Your task to perform on an android device: Open Google Maps Image 0: 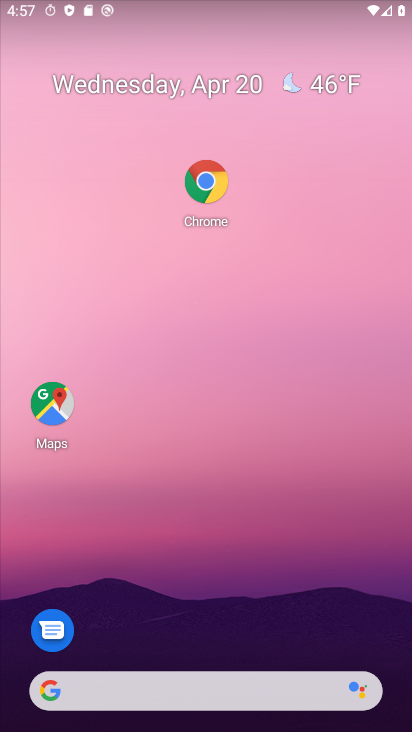
Step 0: click (52, 405)
Your task to perform on an android device: Open Google Maps Image 1: 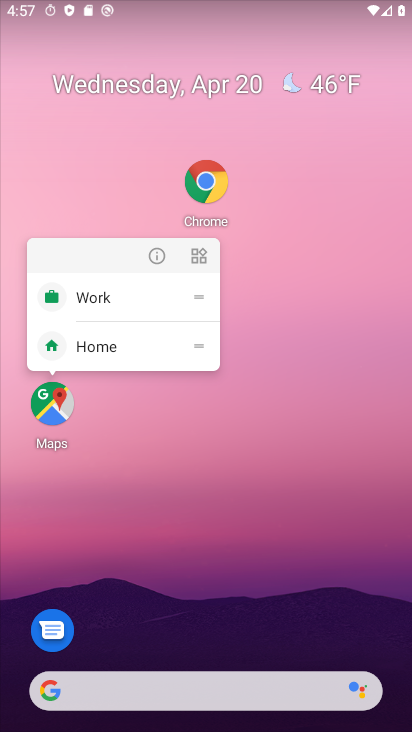
Step 1: drag from (251, 669) to (303, 79)
Your task to perform on an android device: Open Google Maps Image 2: 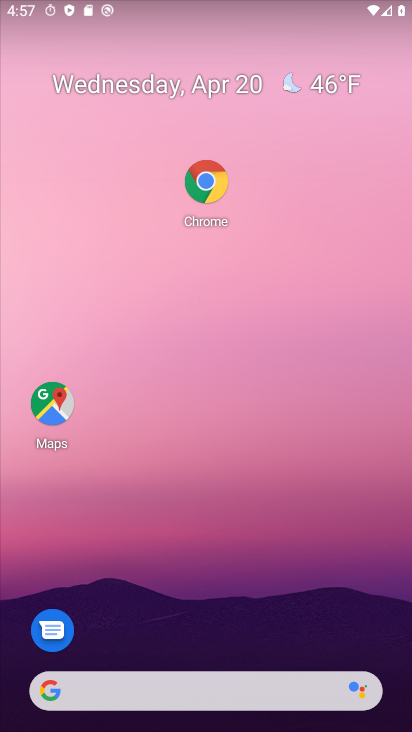
Step 2: drag from (233, 656) to (285, 235)
Your task to perform on an android device: Open Google Maps Image 3: 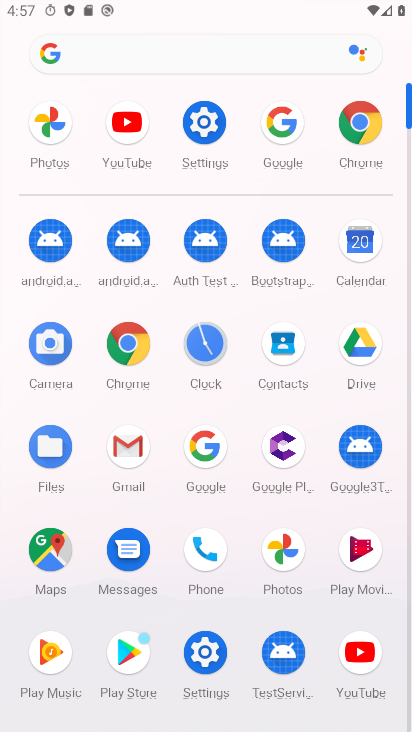
Step 3: click (51, 545)
Your task to perform on an android device: Open Google Maps Image 4: 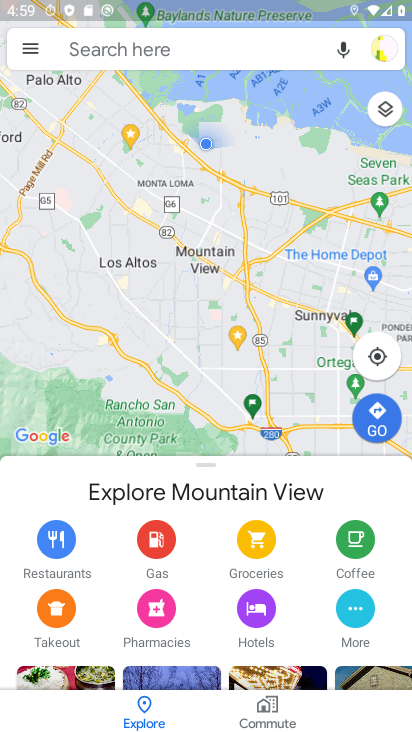
Step 4: task complete